Your task to perform on an android device: Open Amazon Image 0: 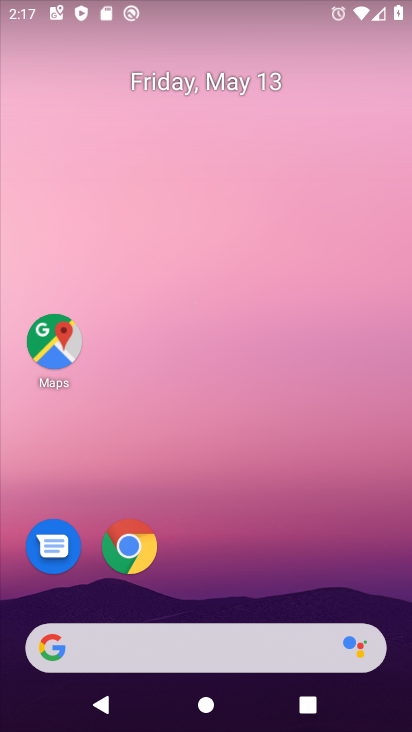
Step 0: drag from (279, 575) to (294, 79)
Your task to perform on an android device: Open Amazon Image 1: 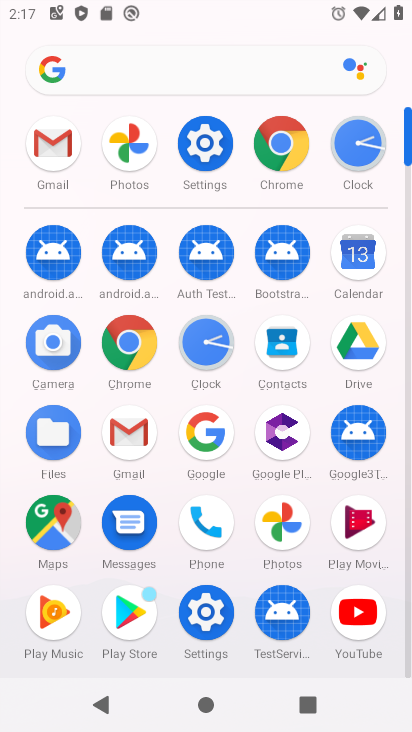
Step 1: click (127, 339)
Your task to perform on an android device: Open Amazon Image 2: 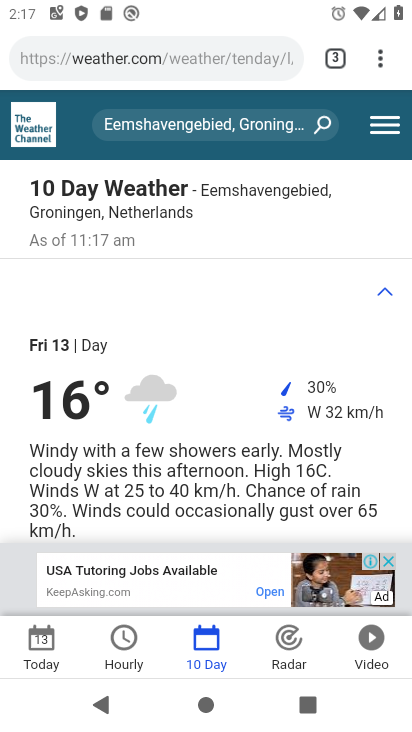
Step 2: click (232, 60)
Your task to perform on an android device: Open Amazon Image 3: 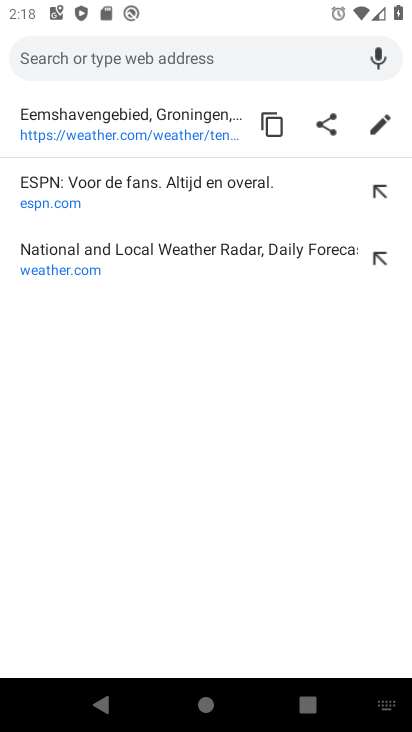
Step 3: type "amazon"
Your task to perform on an android device: Open Amazon Image 4: 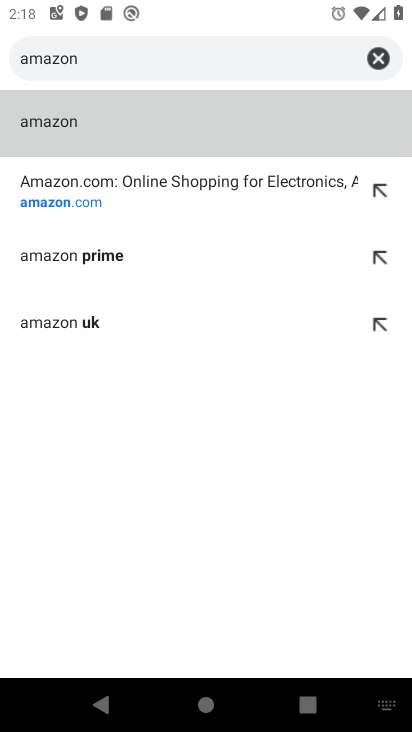
Step 4: click (62, 201)
Your task to perform on an android device: Open Amazon Image 5: 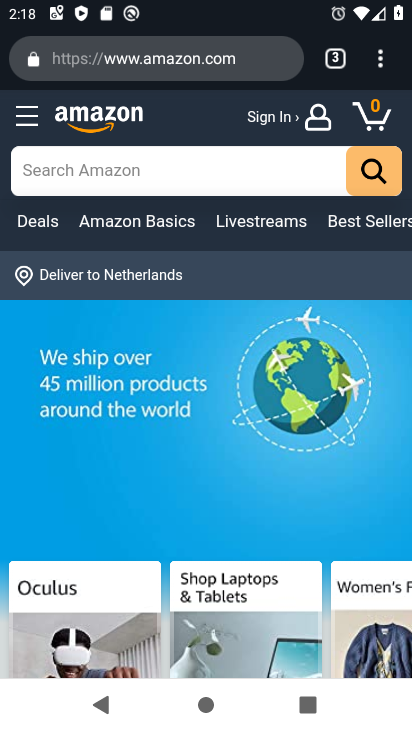
Step 5: task complete